Your task to perform on an android device: Open the Play Movies app and select the watchlist tab. Image 0: 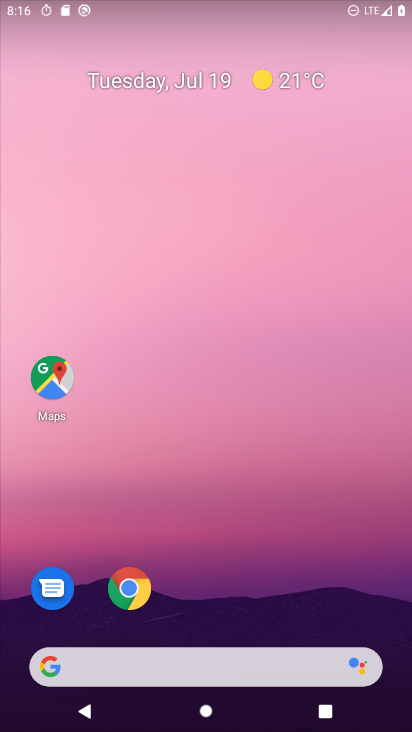
Step 0: drag from (250, 561) to (262, 125)
Your task to perform on an android device: Open the Play Movies app and select the watchlist tab. Image 1: 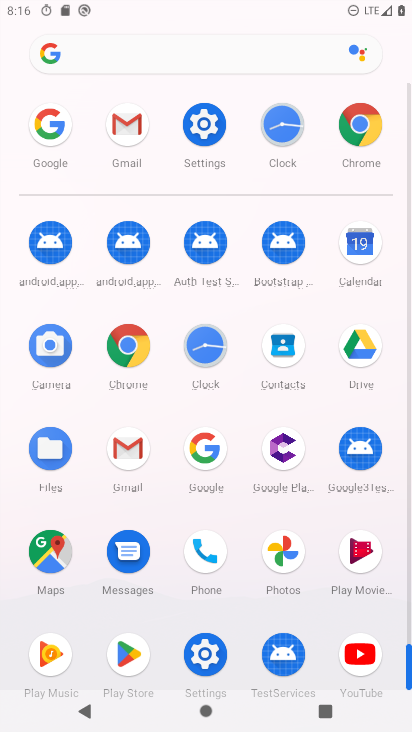
Step 1: drag from (252, 201) to (249, 10)
Your task to perform on an android device: Open the Play Movies app and select the watchlist tab. Image 2: 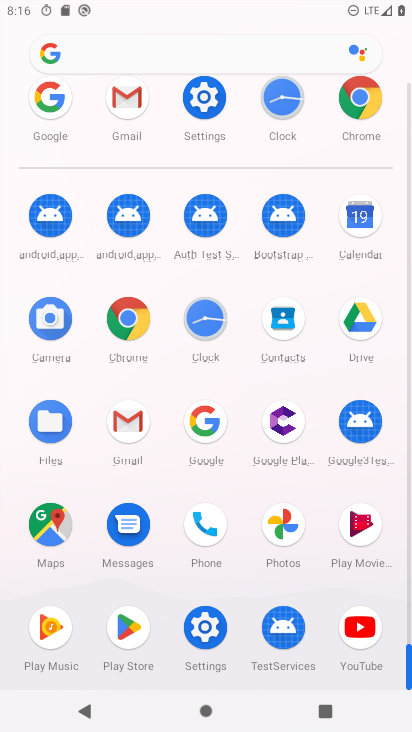
Step 2: click (353, 546)
Your task to perform on an android device: Open the Play Movies app and select the watchlist tab. Image 3: 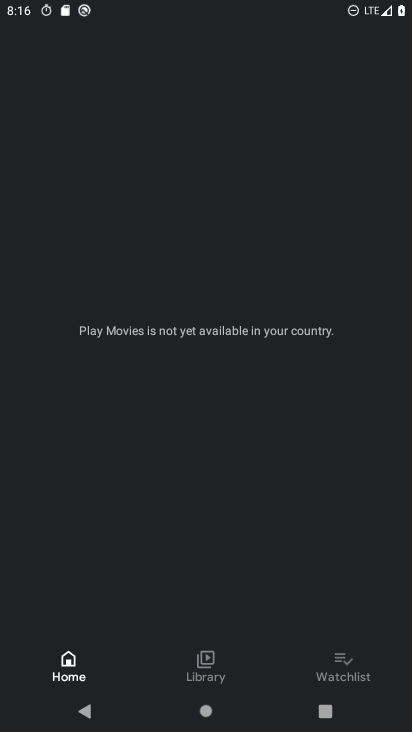
Step 3: task complete